Your task to perform on an android device: Open location settings Image 0: 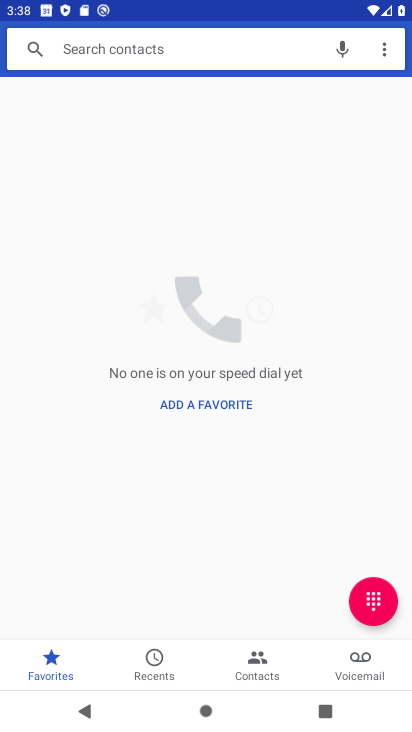
Step 0: press home button
Your task to perform on an android device: Open location settings Image 1: 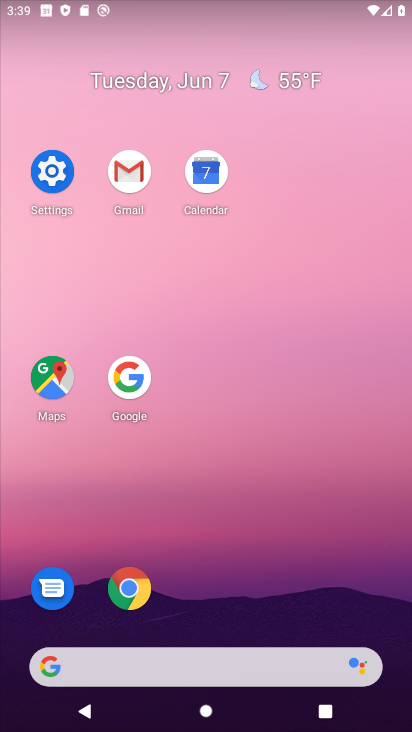
Step 1: click (57, 178)
Your task to perform on an android device: Open location settings Image 2: 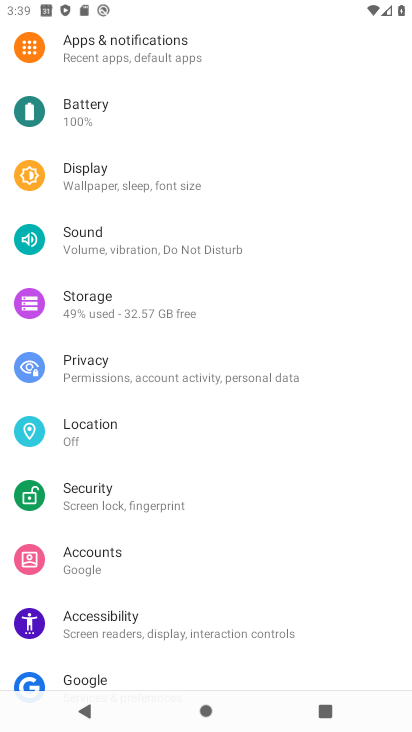
Step 2: click (205, 422)
Your task to perform on an android device: Open location settings Image 3: 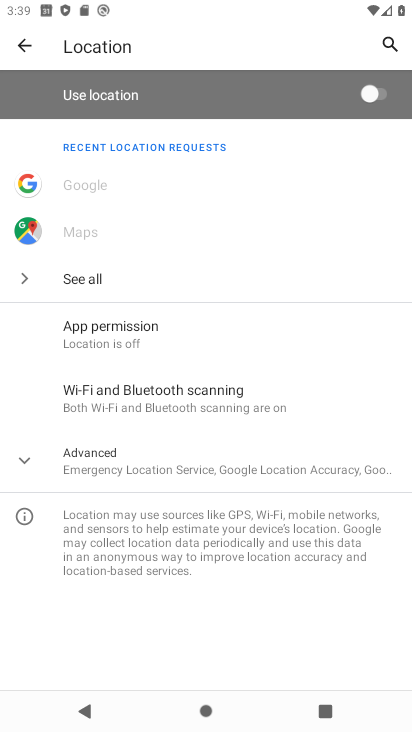
Step 3: task complete